Your task to perform on an android device: Go to calendar. Show me events next week Image 0: 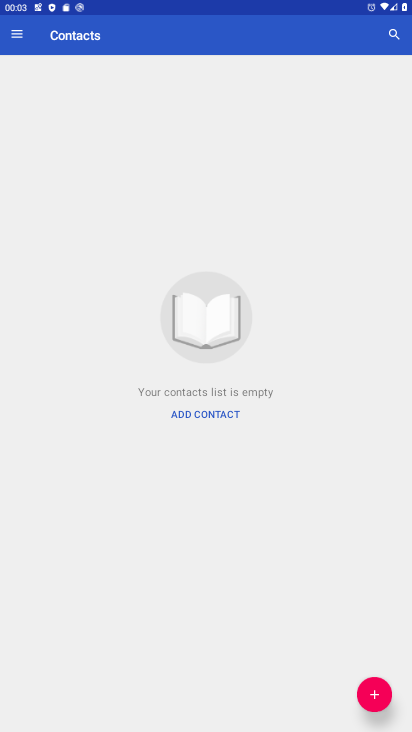
Step 0: press home button
Your task to perform on an android device: Go to calendar. Show me events next week Image 1: 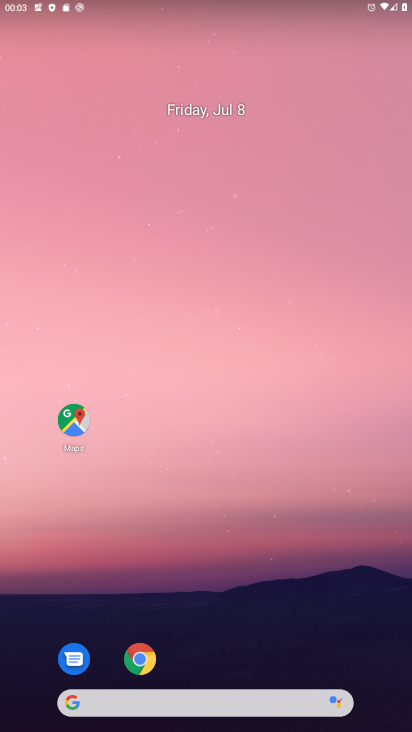
Step 1: click (224, 113)
Your task to perform on an android device: Go to calendar. Show me events next week Image 2: 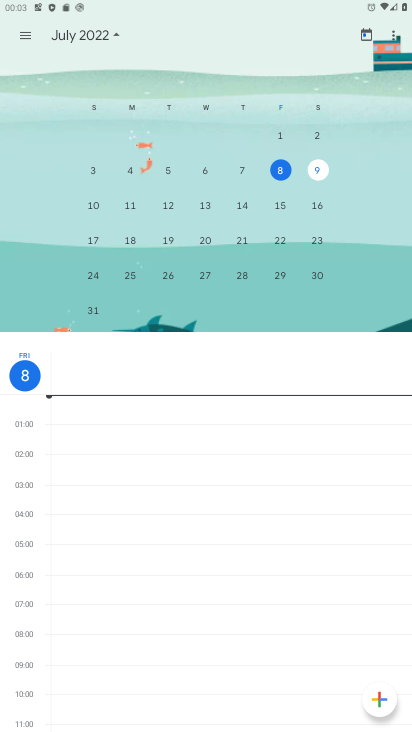
Step 2: click (207, 250)
Your task to perform on an android device: Go to calendar. Show me events next week Image 3: 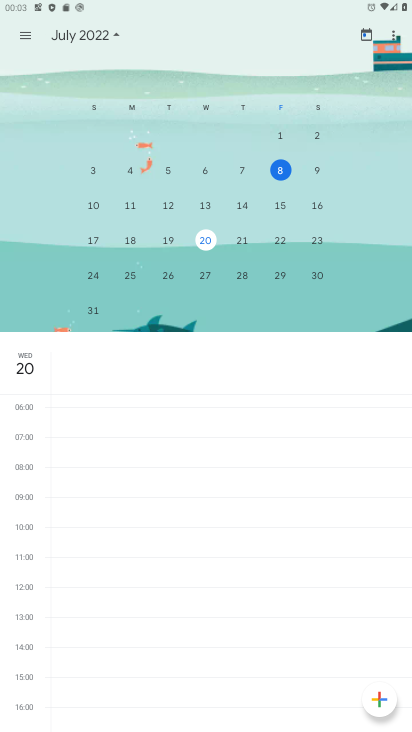
Step 3: click (29, 33)
Your task to perform on an android device: Go to calendar. Show me events next week Image 4: 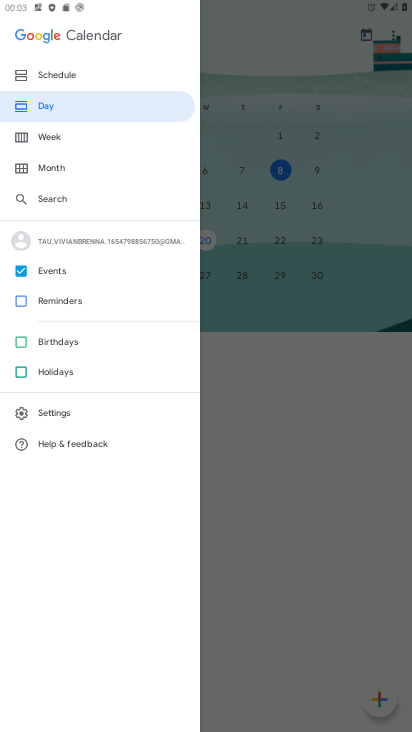
Step 4: click (46, 138)
Your task to perform on an android device: Go to calendar. Show me events next week Image 5: 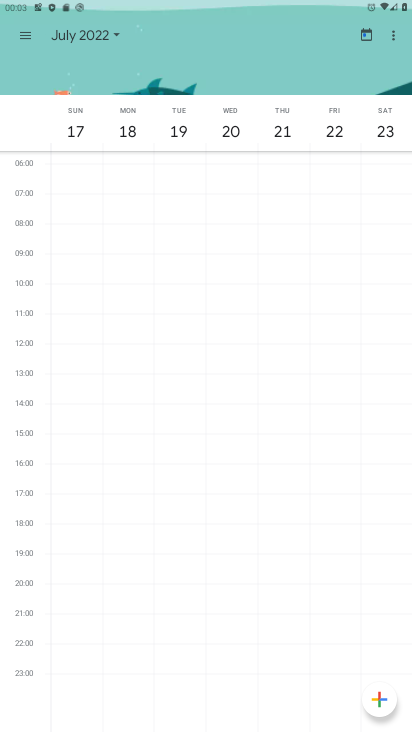
Step 5: task complete